Your task to perform on an android device: Search for Mexican restaurants on Maps Image 0: 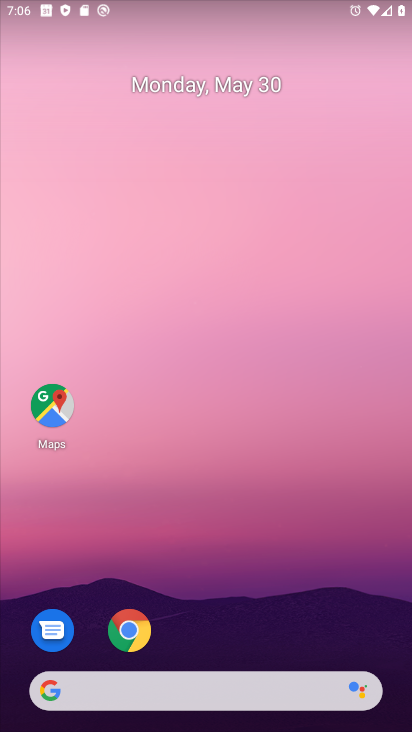
Step 0: drag from (350, 628) to (306, 15)
Your task to perform on an android device: Search for Mexican restaurants on Maps Image 1: 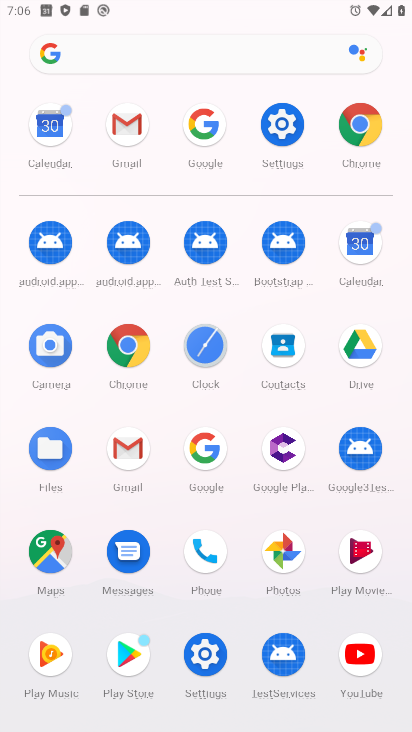
Step 1: click (33, 549)
Your task to perform on an android device: Search for Mexican restaurants on Maps Image 2: 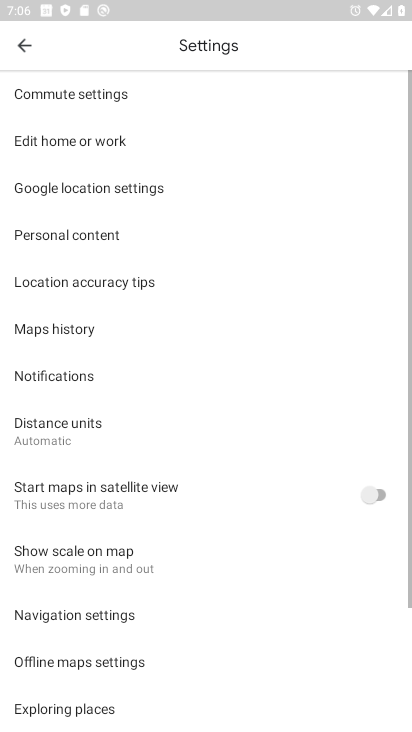
Step 2: press back button
Your task to perform on an android device: Search for Mexican restaurants on Maps Image 3: 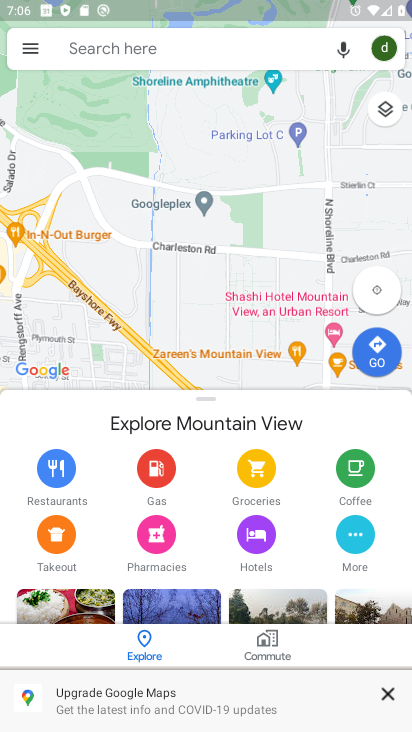
Step 3: click (144, 50)
Your task to perform on an android device: Search for Mexican restaurants on Maps Image 4: 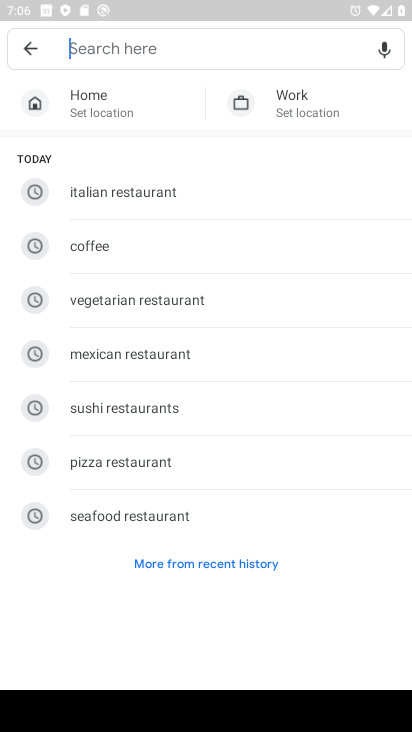
Step 4: click (162, 351)
Your task to perform on an android device: Search for Mexican restaurants on Maps Image 5: 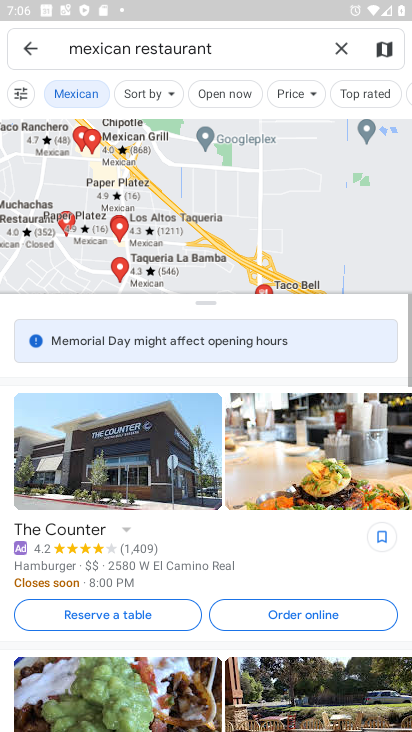
Step 5: task complete